Your task to perform on an android device: visit the assistant section in the google photos Image 0: 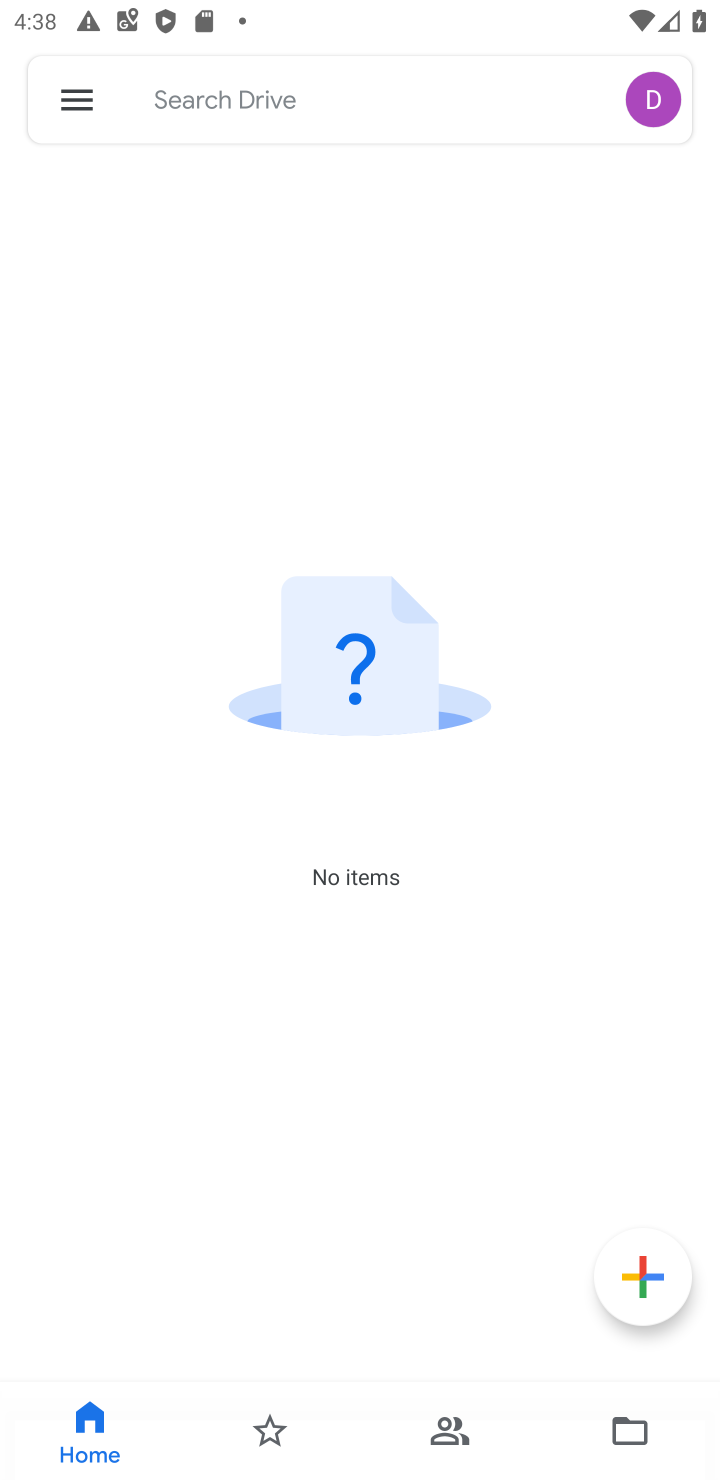
Step 0: press home button
Your task to perform on an android device: visit the assistant section in the google photos Image 1: 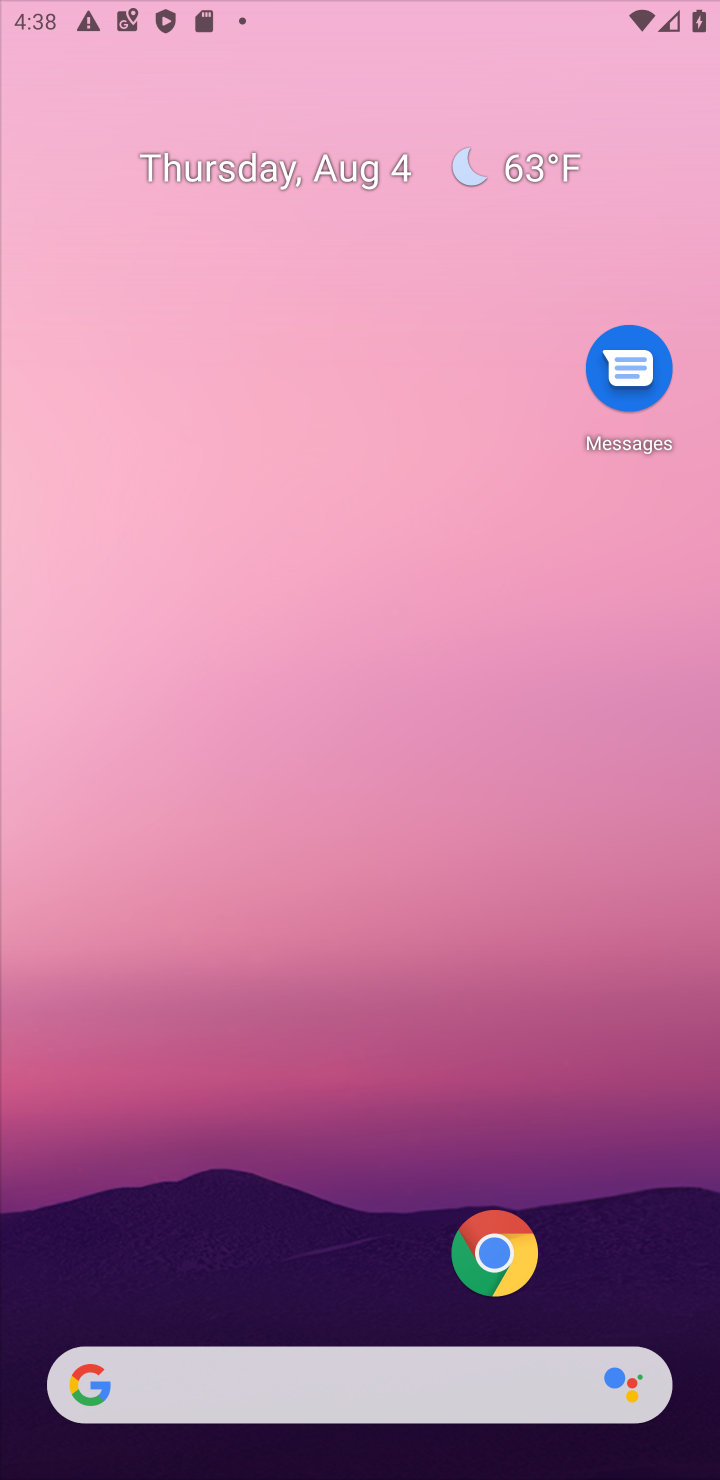
Step 1: drag from (316, 1245) to (249, 451)
Your task to perform on an android device: visit the assistant section in the google photos Image 2: 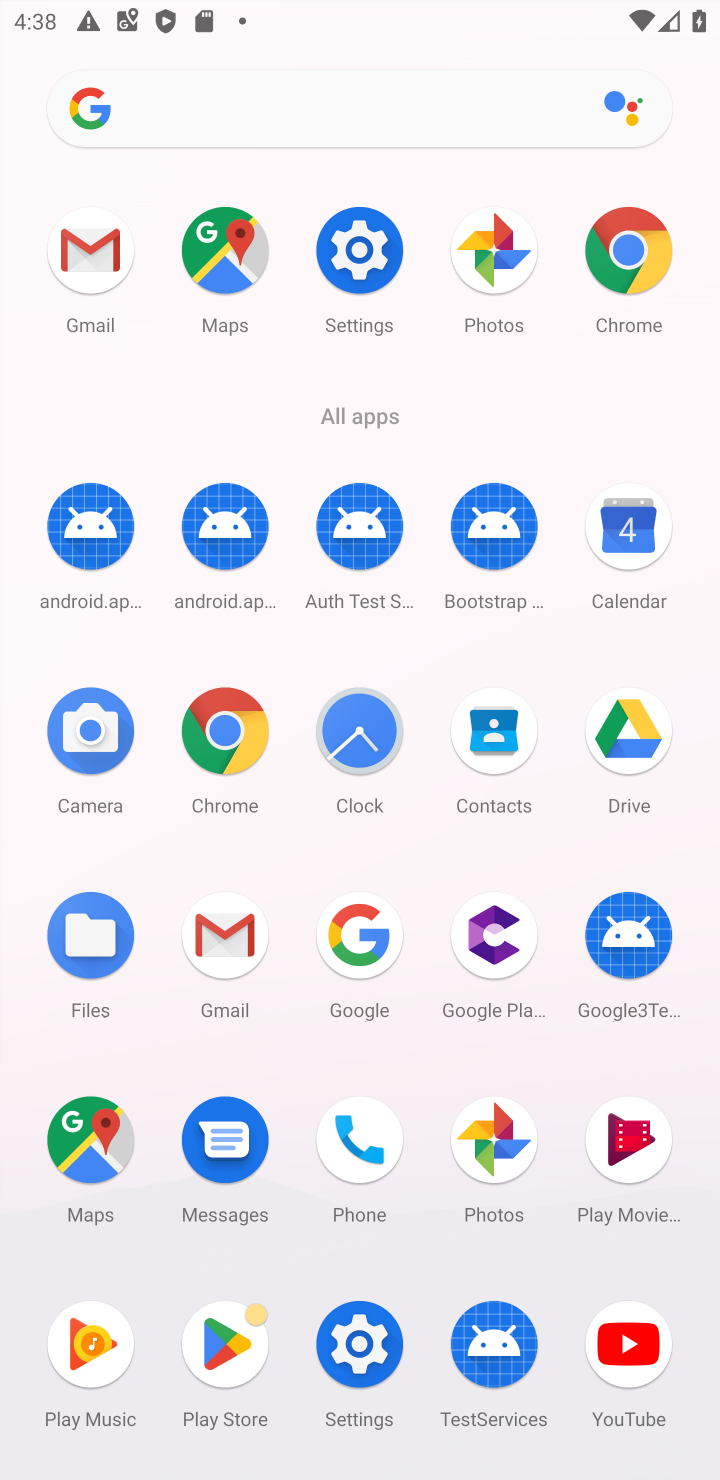
Step 2: click (482, 1135)
Your task to perform on an android device: visit the assistant section in the google photos Image 3: 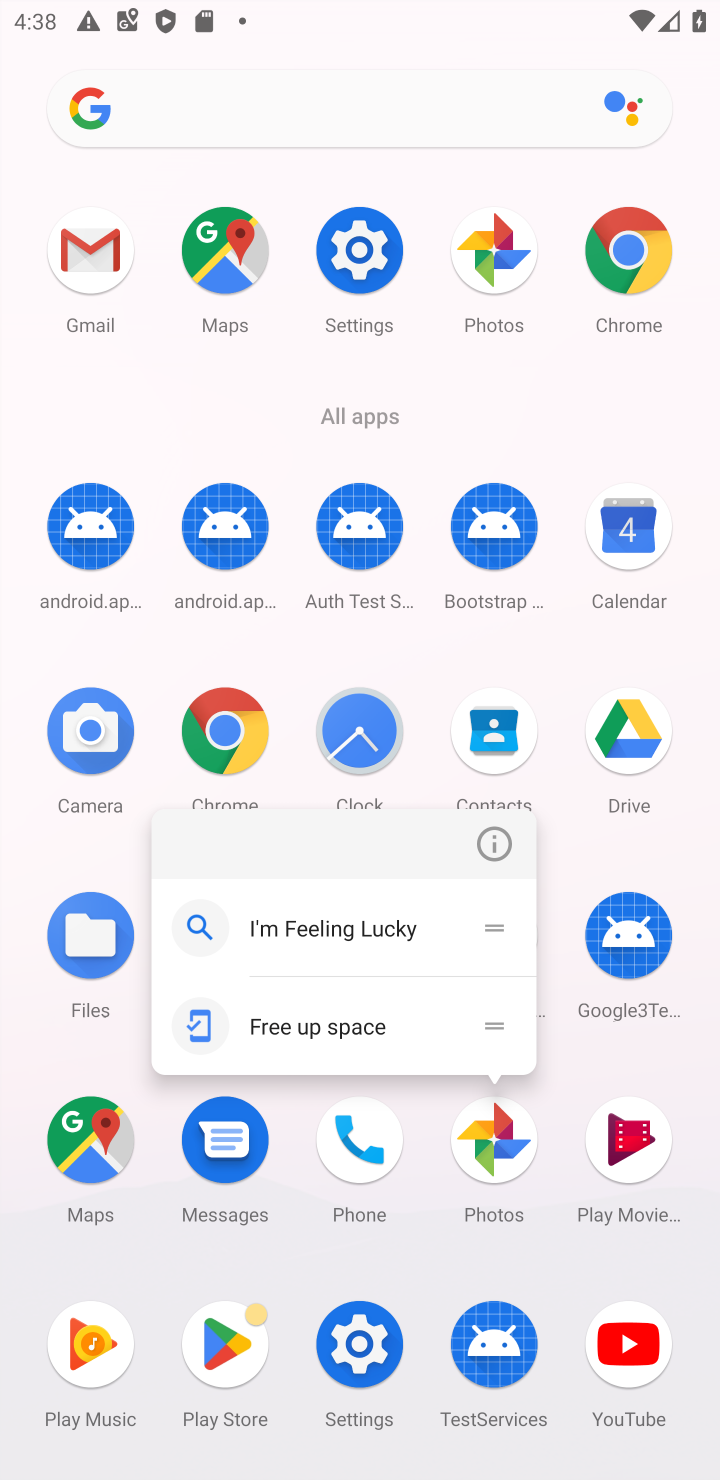
Step 3: click (496, 1146)
Your task to perform on an android device: visit the assistant section in the google photos Image 4: 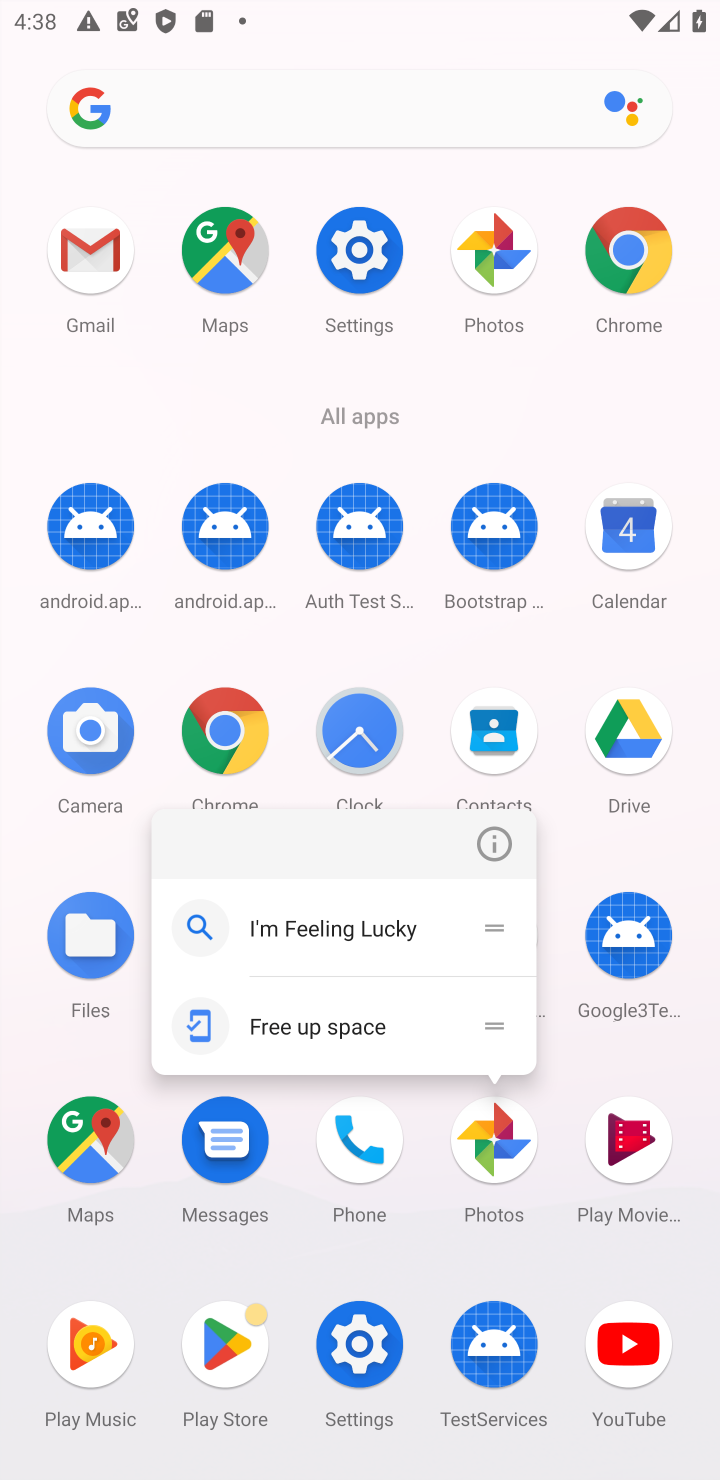
Step 4: click (496, 1146)
Your task to perform on an android device: visit the assistant section in the google photos Image 5: 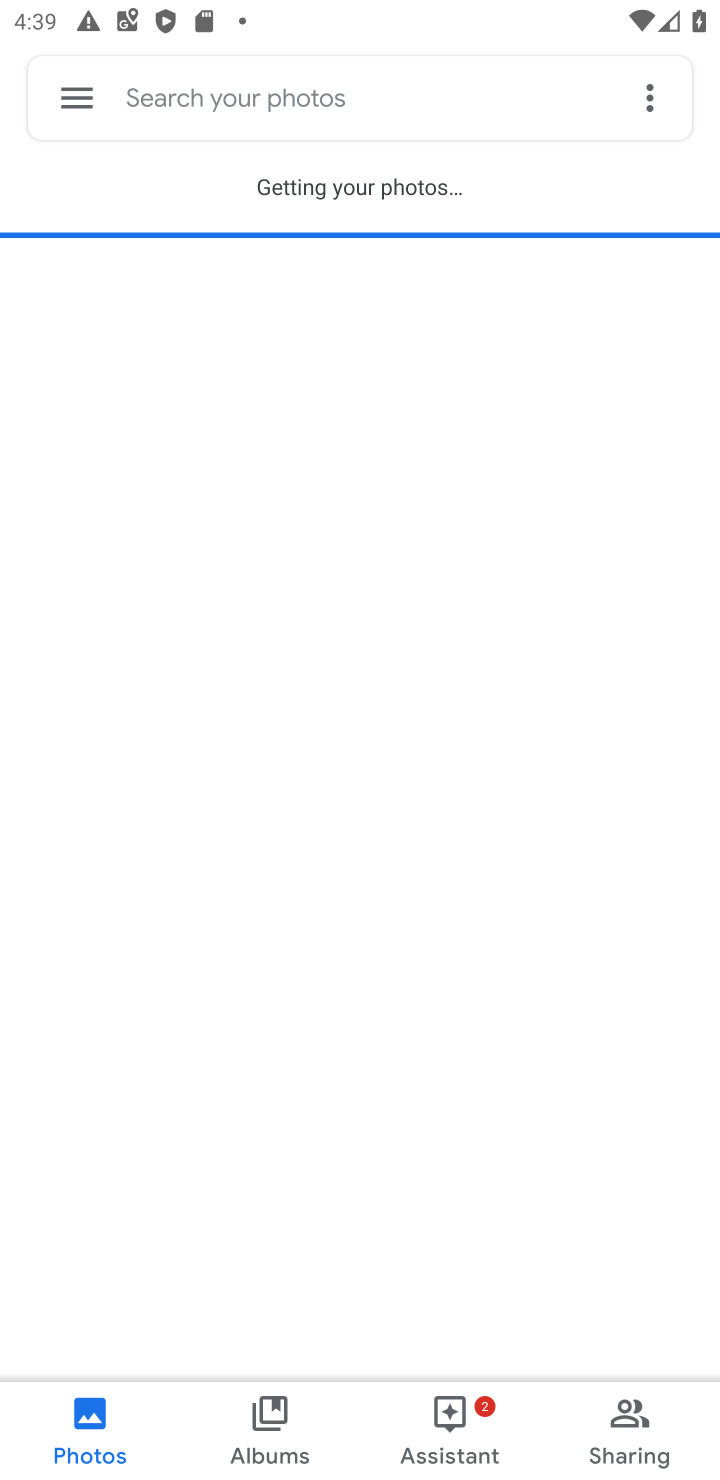
Step 5: click (439, 1417)
Your task to perform on an android device: visit the assistant section in the google photos Image 6: 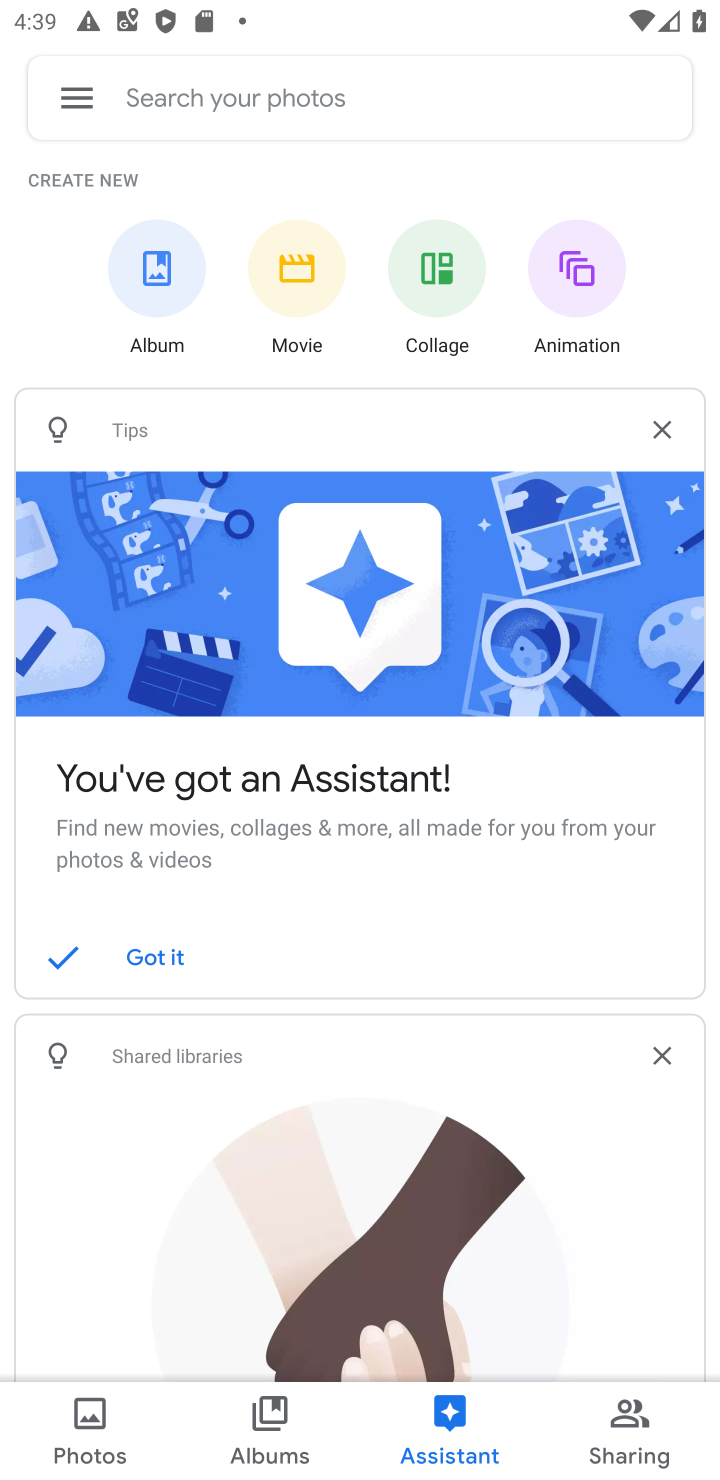
Step 6: task complete